Your task to perform on an android device: turn off notifications in google photos Image 0: 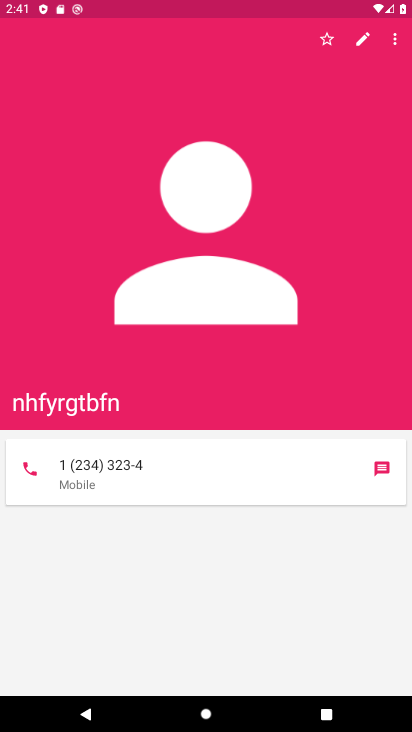
Step 0: press home button
Your task to perform on an android device: turn off notifications in google photos Image 1: 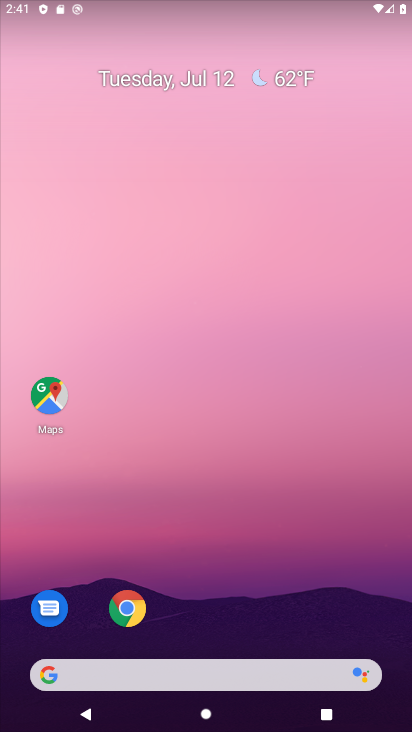
Step 1: drag from (149, 676) to (241, 77)
Your task to perform on an android device: turn off notifications in google photos Image 2: 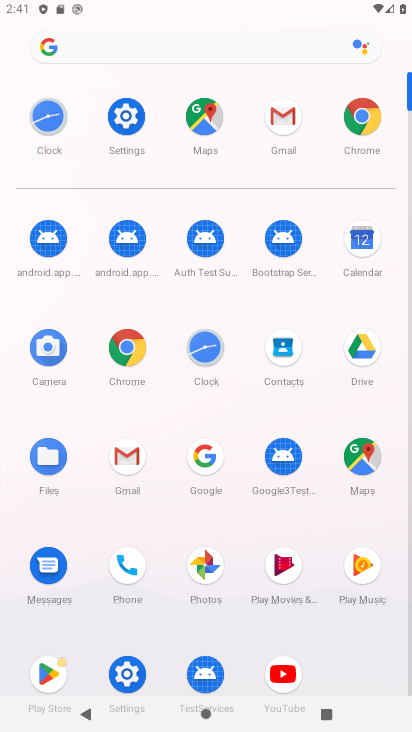
Step 2: click (208, 569)
Your task to perform on an android device: turn off notifications in google photos Image 3: 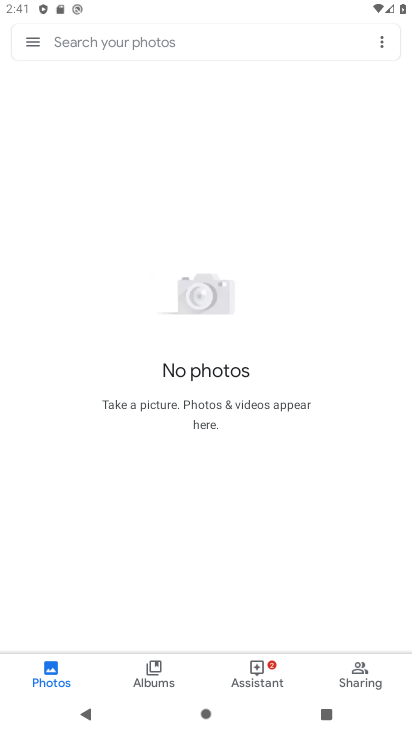
Step 3: click (30, 35)
Your task to perform on an android device: turn off notifications in google photos Image 4: 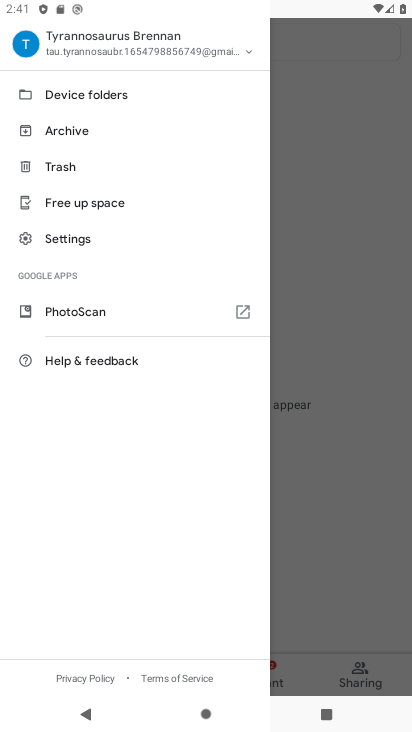
Step 4: click (67, 232)
Your task to perform on an android device: turn off notifications in google photos Image 5: 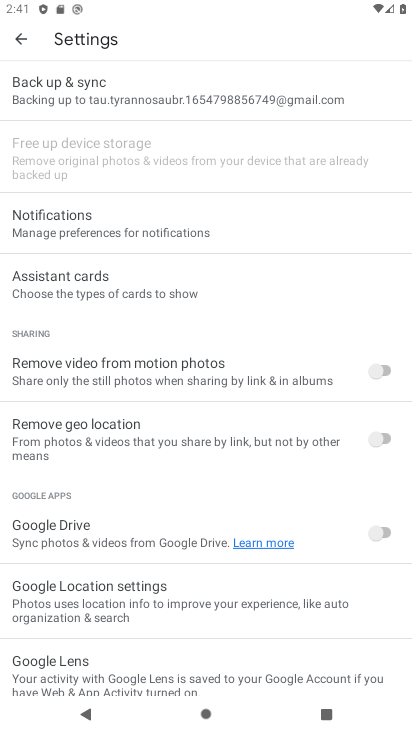
Step 5: click (130, 226)
Your task to perform on an android device: turn off notifications in google photos Image 6: 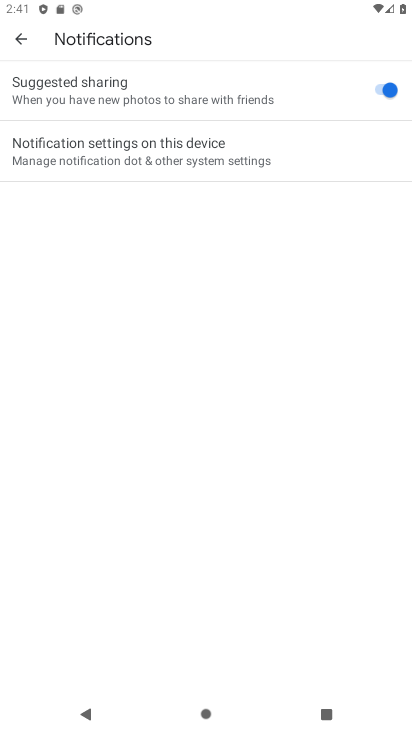
Step 6: click (390, 82)
Your task to perform on an android device: turn off notifications in google photos Image 7: 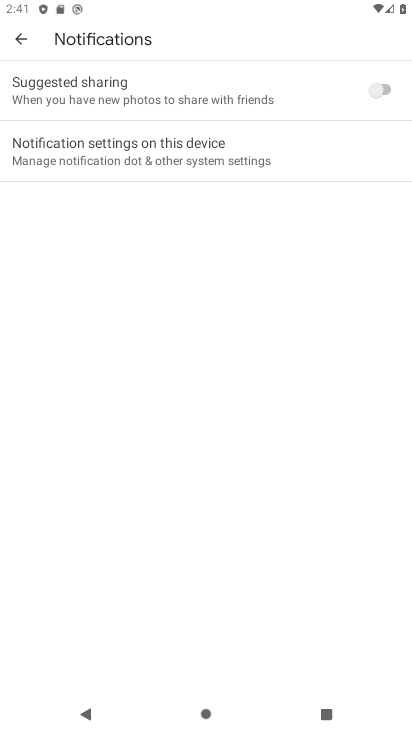
Step 7: click (383, 83)
Your task to perform on an android device: turn off notifications in google photos Image 8: 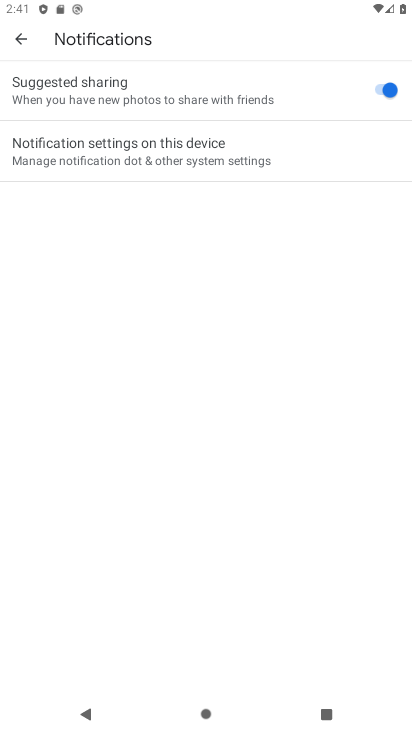
Step 8: click (277, 155)
Your task to perform on an android device: turn off notifications in google photos Image 9: 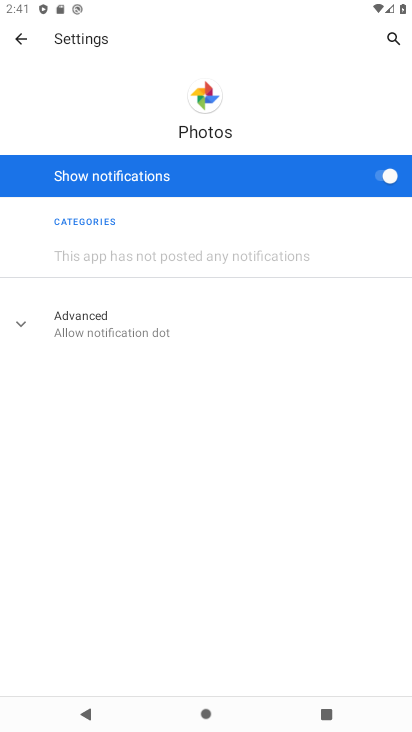
Step 9: click (378, 173)
Your task to perform on an android device: turn off notifications in google photos Image 10: 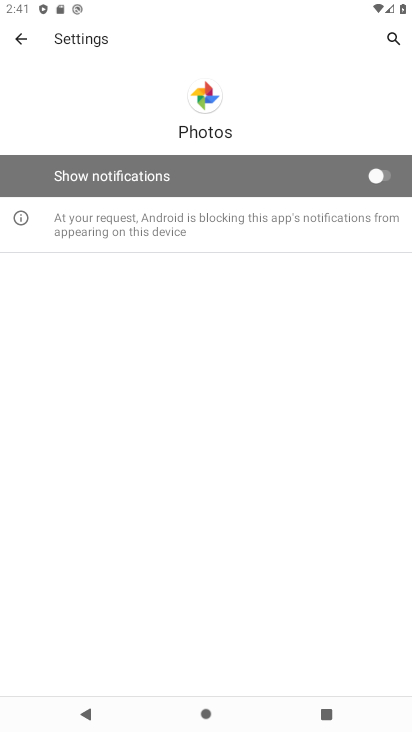
Step 10: task complete